Your task to perform on an android device: Go to calendar. Show me events next week Image 0: 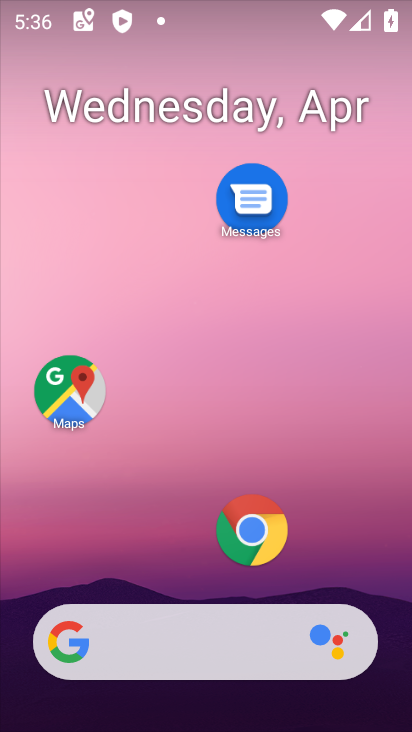
Step 0: drag from (150, 557) to (246, 30)
Your task to perform on an android device: Go to calendar. Show me events next week Image 1: 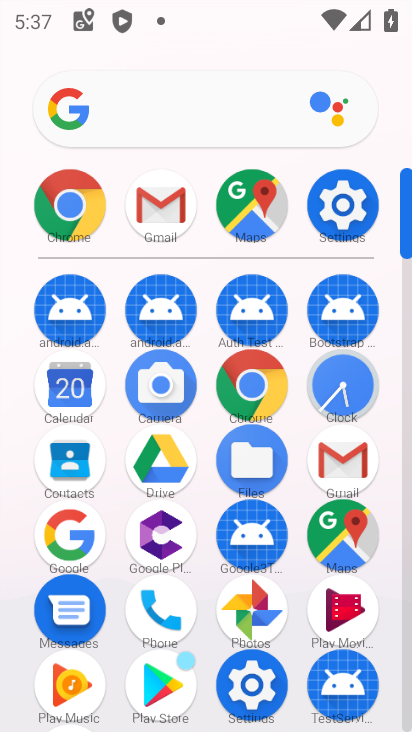
Step 1: click (69, 393)
Your task to perform on an android device: Go to calendar. Show me events next week Image 2: 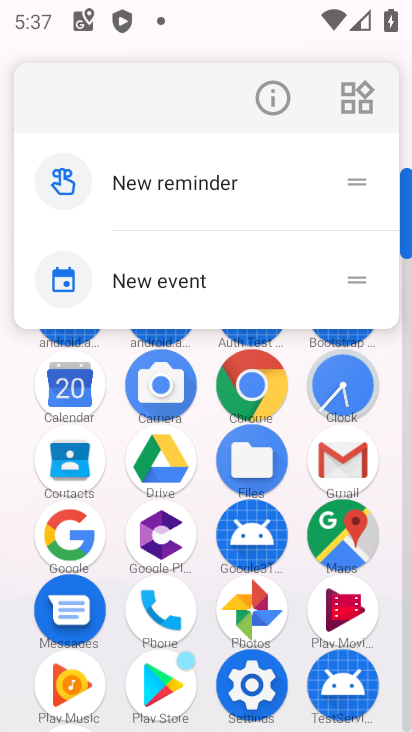
Step 2: click (69, 393)
Your task to perform on an android device: Go to calendar. Show me events next week Image 3: 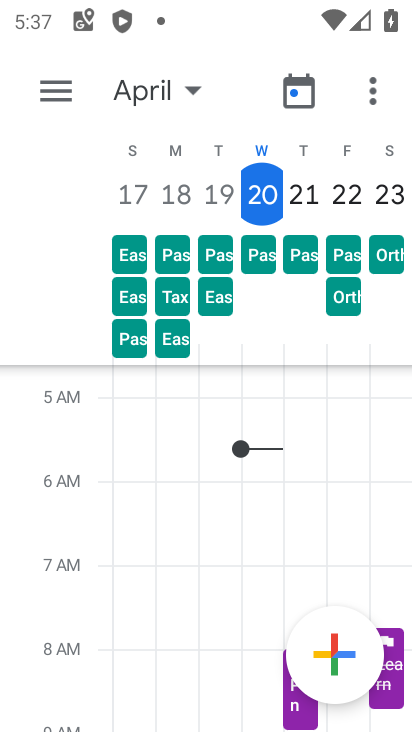
Step 3: click (199, 88)
Your task to perform on an android device: Go to calendar. Show me events next week Image 4: 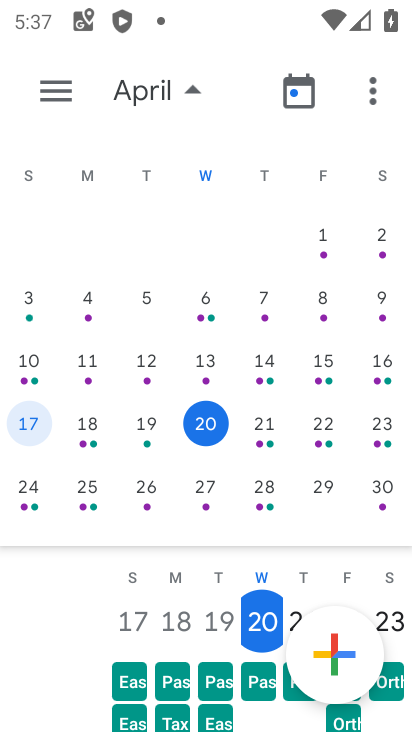
Step 4: click (95, 492)
Your task to perform on an android device: Go to calendar. Show me events next week Image 5: 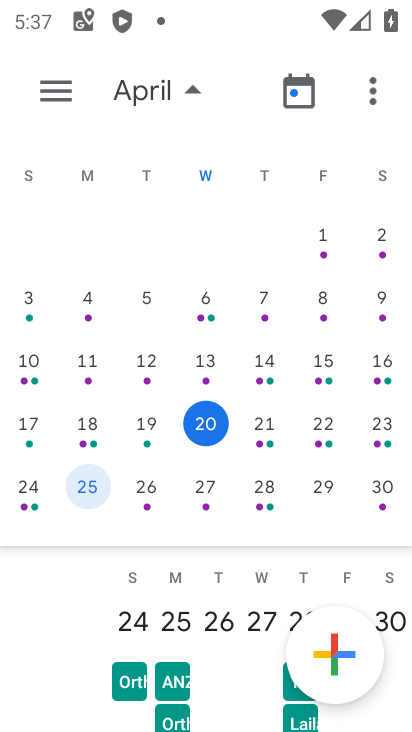
Step 5: click (67, 93)
Your task to perform on an android device: Go to calendar. Show me events next week Image 6: 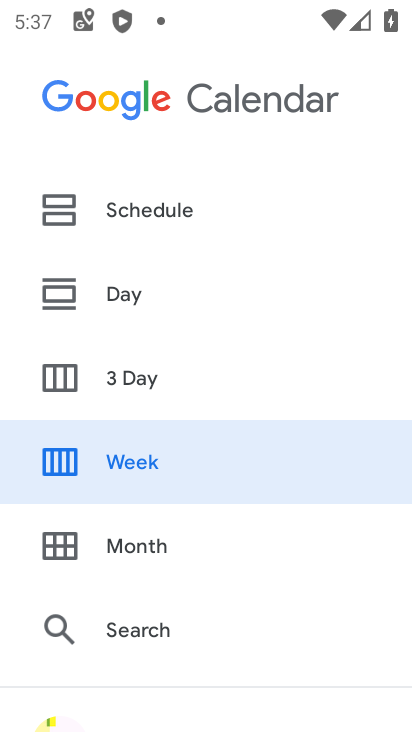
Step 6: click (151, 485)
Your task to perform on an android device: Go to calendar. Show me events next week Image 7: 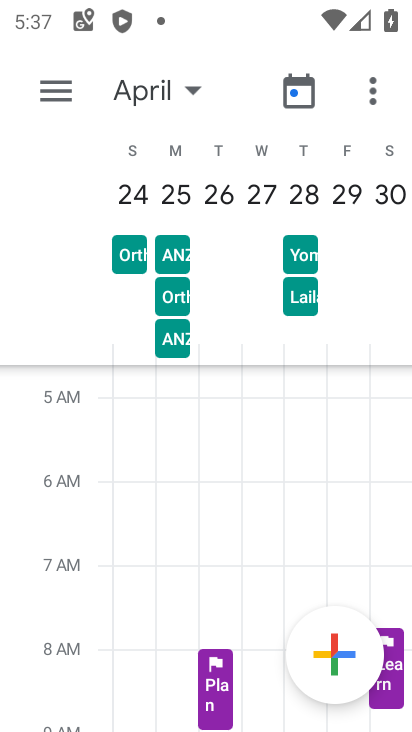
Step 7: task complete